Your task to perform on an android device: find which apps use the phone's location Image 0: 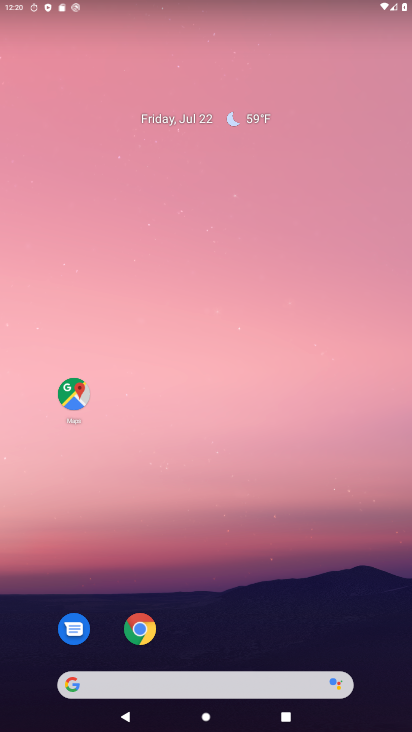
Step 0: drag from (185, 637) to (232, 33)
Your task to perform on an android device: find which apps use the phone's location Image 1: 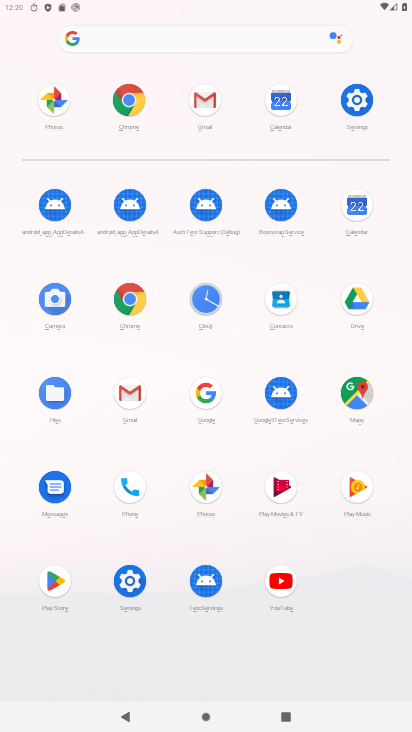
Step 1: click (363, 102)
Your task to perform on an android device: find which apps use the phone's location Image 2: 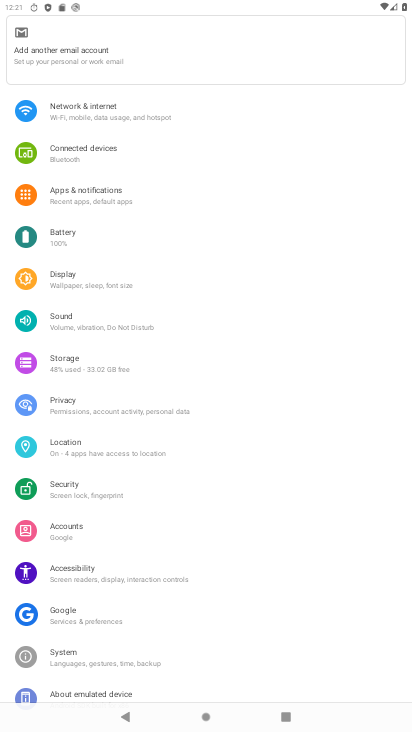
Step 2: click (69, 455)
Your task to perform on an android device: find which apps use the phone's location Image 3: 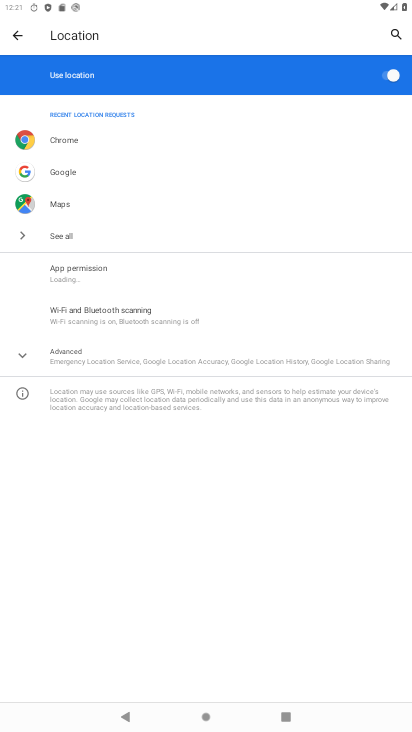
Step 3: click (101, 268)
Your task to perform on an android device: find which apps use the phone's location Image 4: 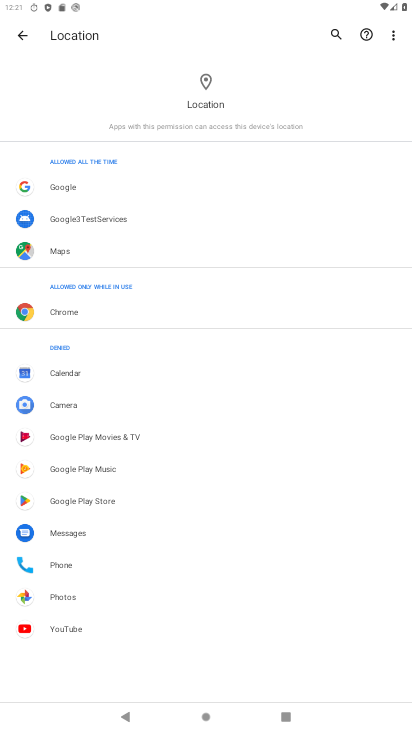
Step 4: task complete